Your task to perform on an android device: Open Google Maps and go to "Timeline" Image 0: 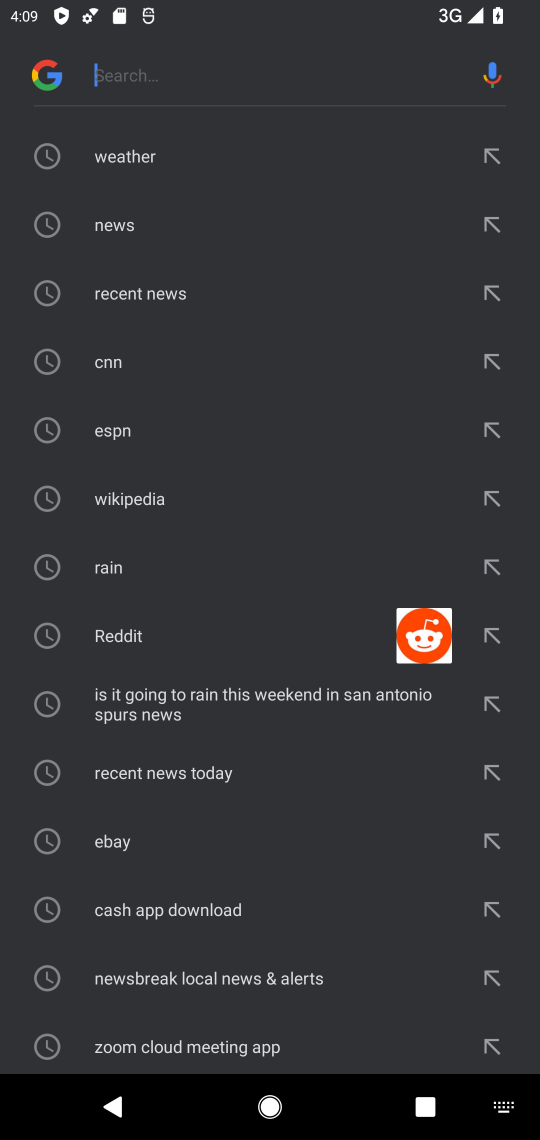
Step 0: press home button
Your task to perform on an android device: Open Google Maps and go to "Timeline" Image 1: 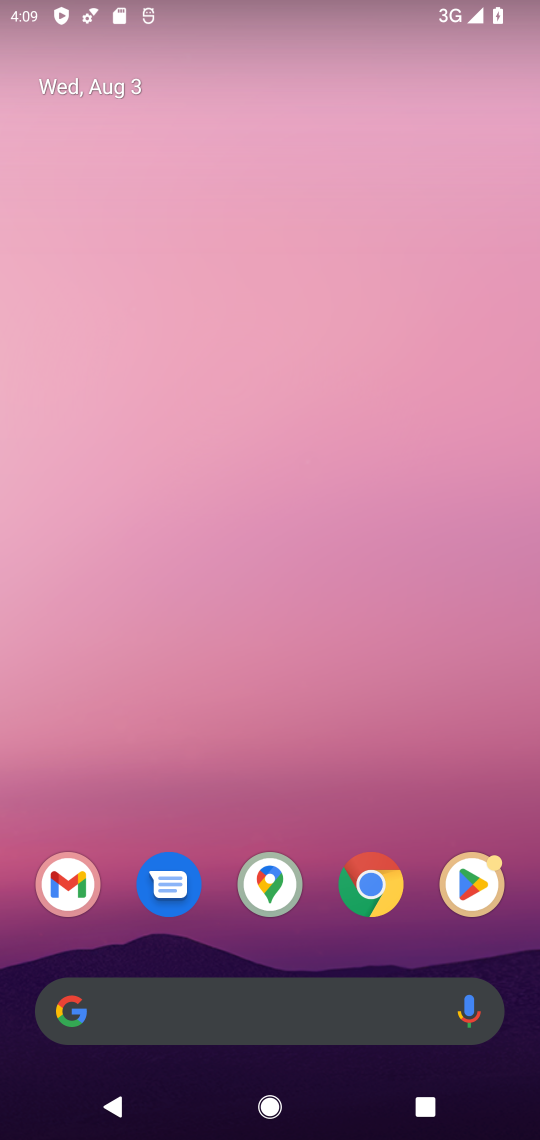
Step 1: task complete